Your task to perform on an android device: When is my next meeting? Image 0: 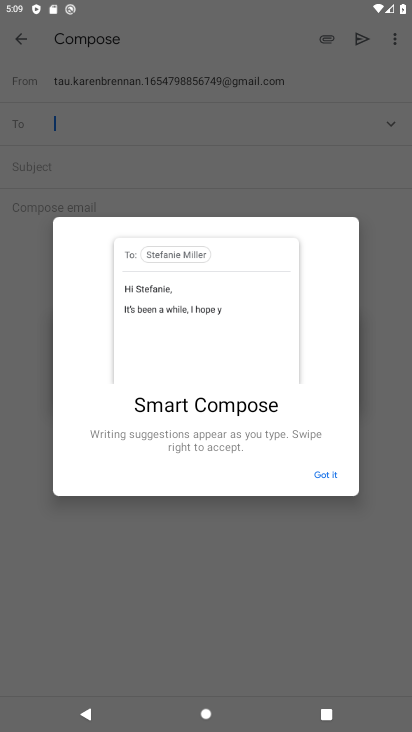
Step 0: press home button
Your task to perform on an android device: When is my next meeting? Image 1: 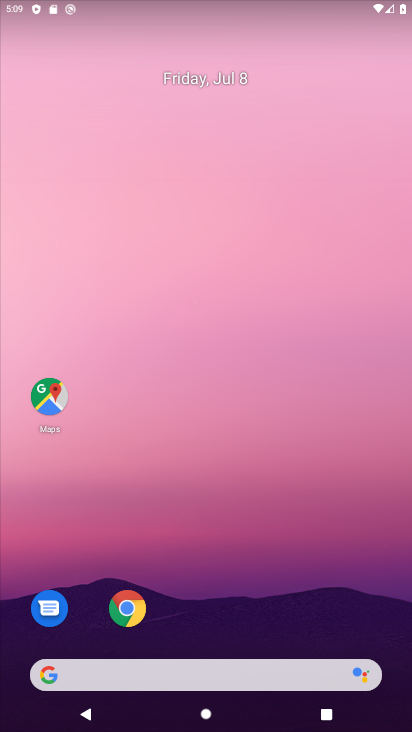
Step 1: drag from (310, 317) to (294, 102)
Your task to perform on an android device: When is my next meeting? Image 2: 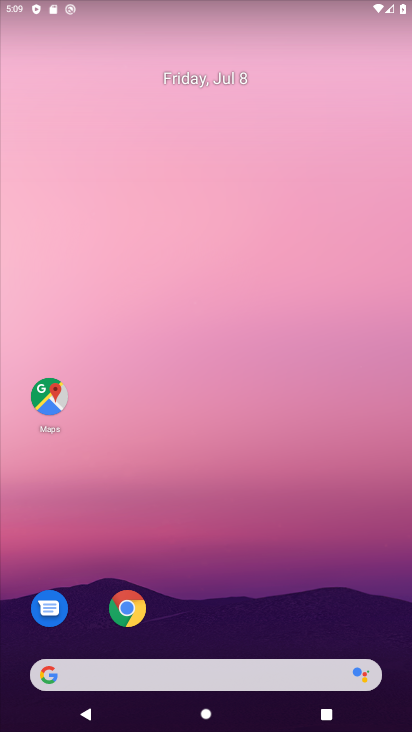
Step 2: drag from (261, 620) to (278, 10)
Your task to perform on an android device: When is my next meeting? Image 3: 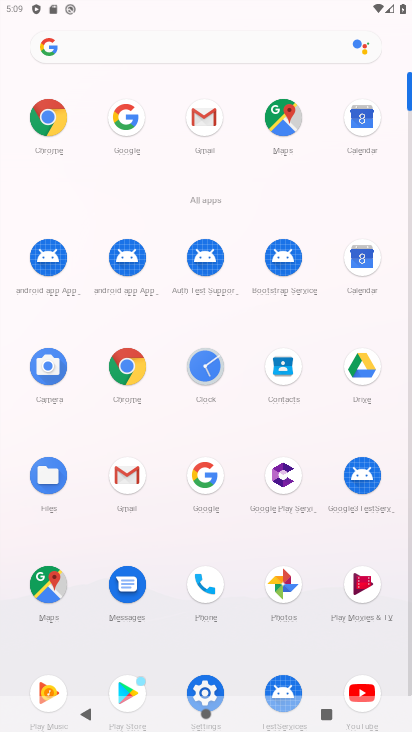
Step 3: click (365, 259)
Your task to perform on an android device: When is my next meeting? Image 4: 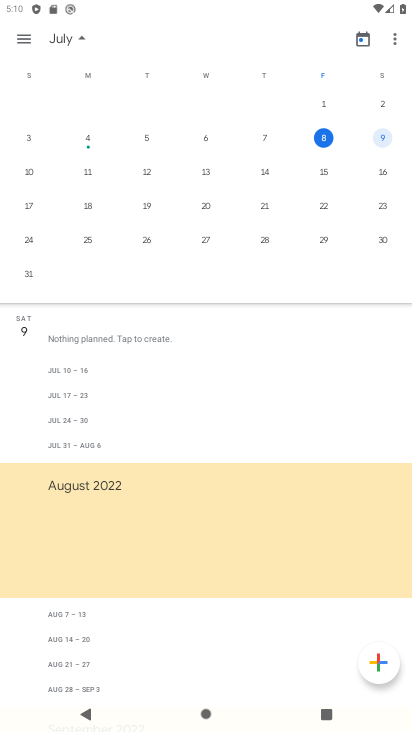
Step 4: click (86, 33)
Your task to perform on an android device: When is my next meeting? Image 5: 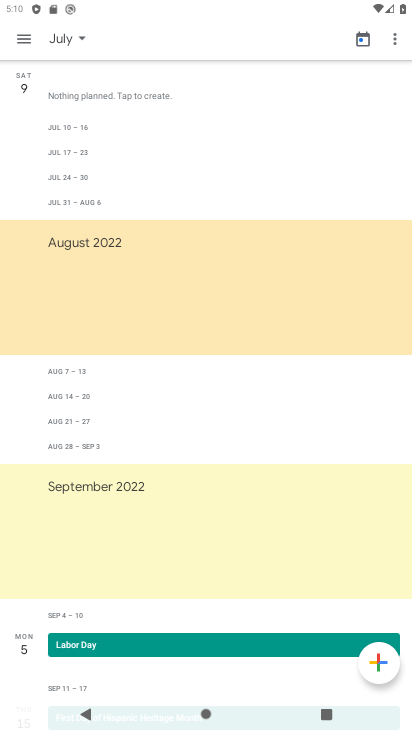
Step 5: click (80, 41)
Your task to perform on an android device: When is my next meeting? Image 6: 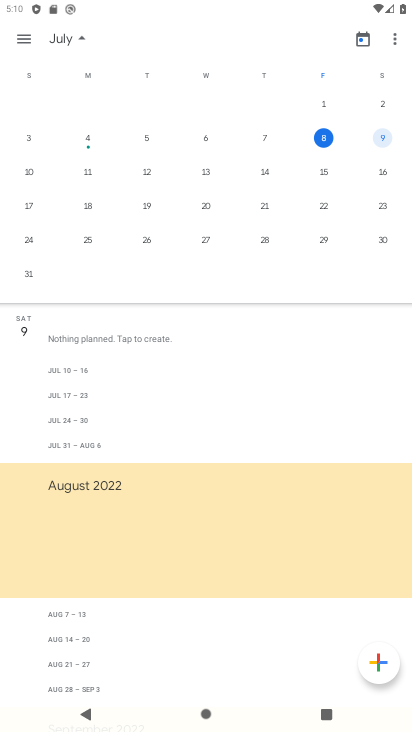
Step 6: click (81, 171)
Your task to perform on an android device: When is my next meeting? Image 7: 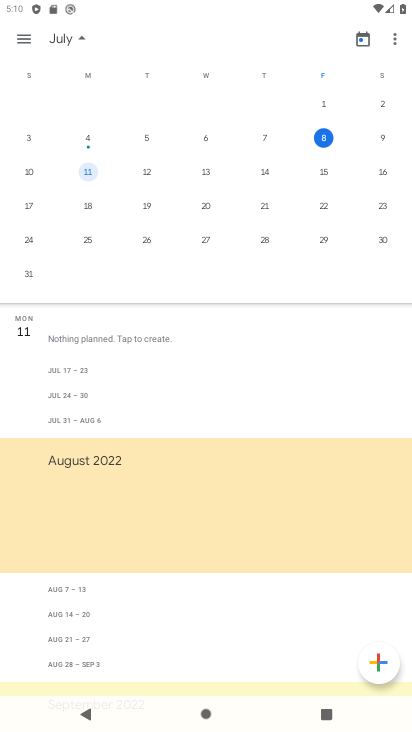
Step 7: task complete